Your task to perform on an android device: Open sound settings Image 0: 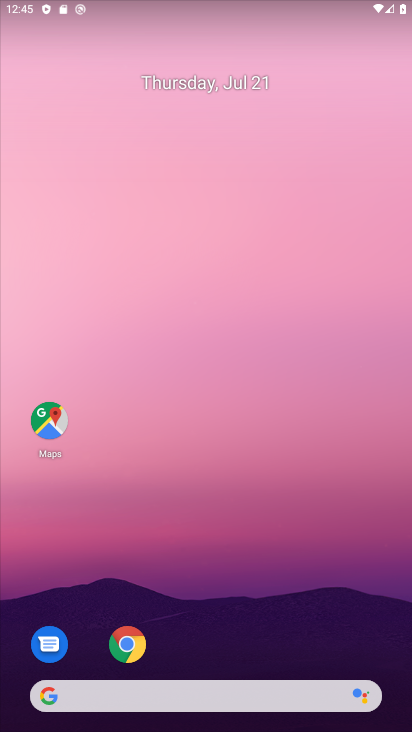
Step 0: drag from (203, 670) to (158, 100)
Your task to perform on an android device: Open sound settings Image 1: 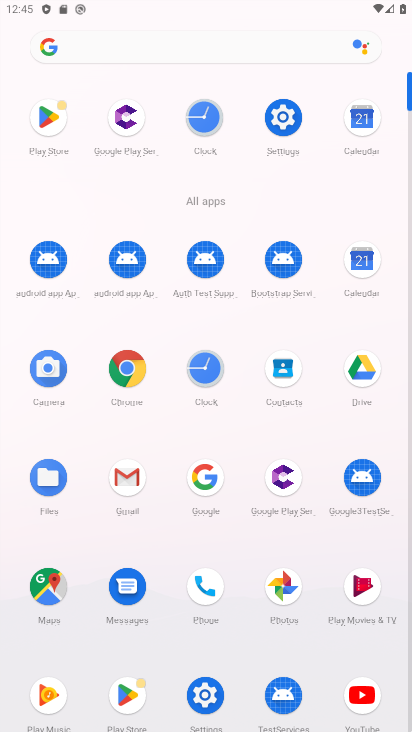
Step 1: click (286, 120)
Your task to perform on an android device: Open sound settings Image 2: 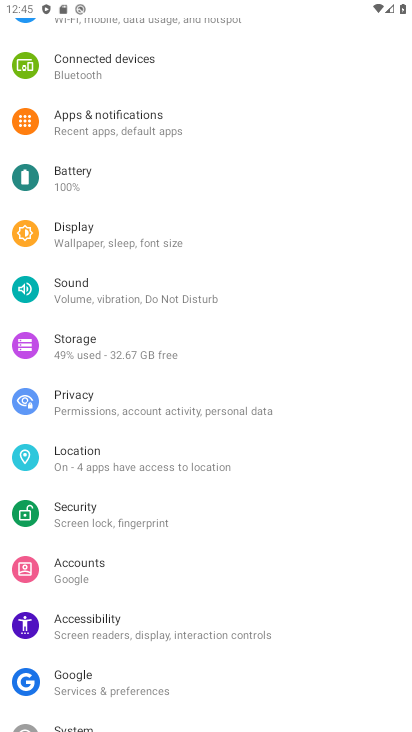
Step 2: click (74, 291)
Your task to perform on an android device: Open sound settings Image 3: 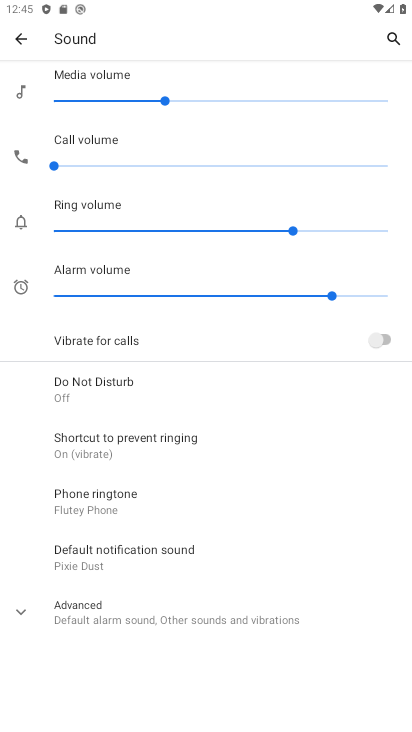
Step 3: click (156, 616)
Your task to perform on an android device: Open sound settings Image 4: 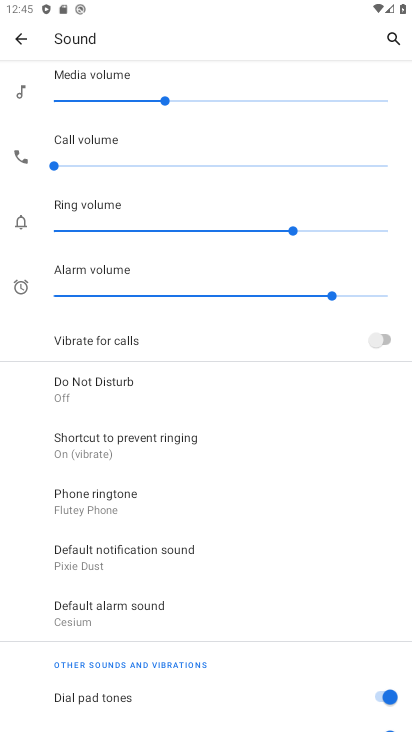
Step 4: task complete